Your task to perform on an android device: Look up the best rated headphones on Amazon. Image 0: 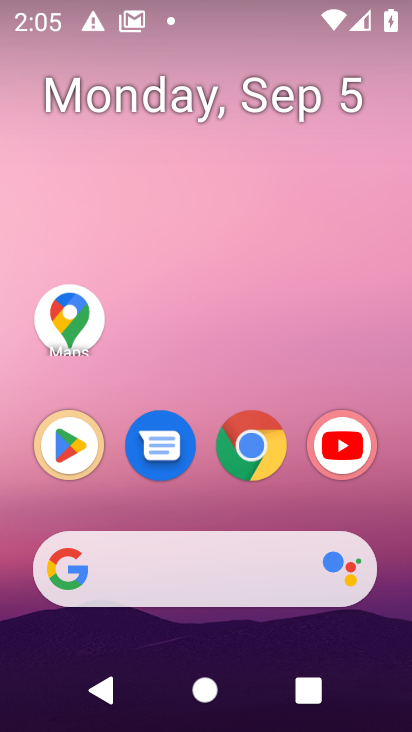
Step 0: drag from (206, 188) to (201, 0)
Your task to perform on an android device: Look up the best rated headphones on Amazon. Image 1: 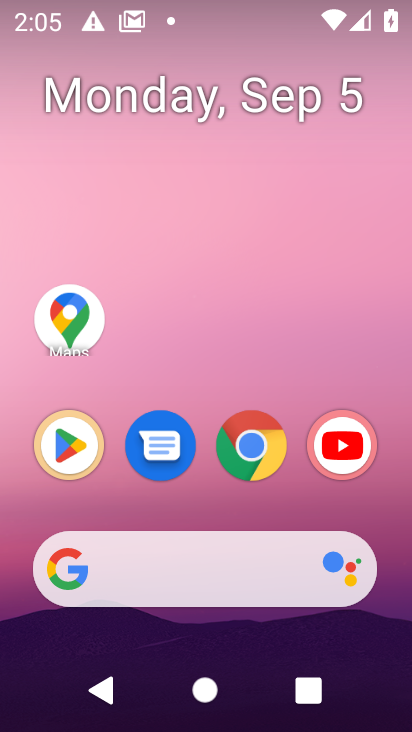
Step 1: drag from (195, 496) to (191, 0)
Your task to perform on an android device: Look up the best rated headphones on Amazon. Image 2: 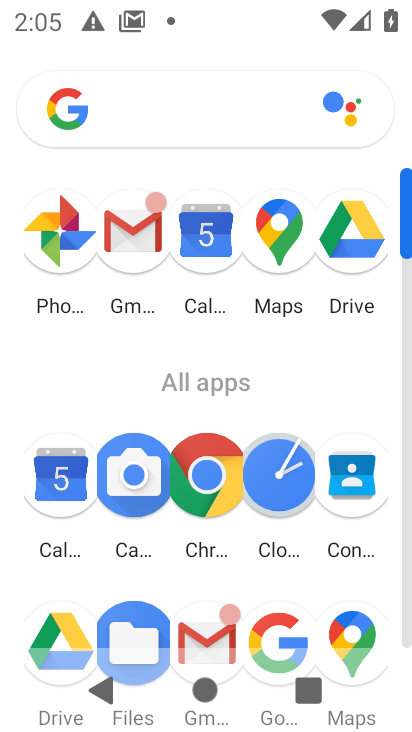
Step 2: click (207, 474)
Your task to perform on an android device: Look up the best rated headphones on Amazon. Image 3: 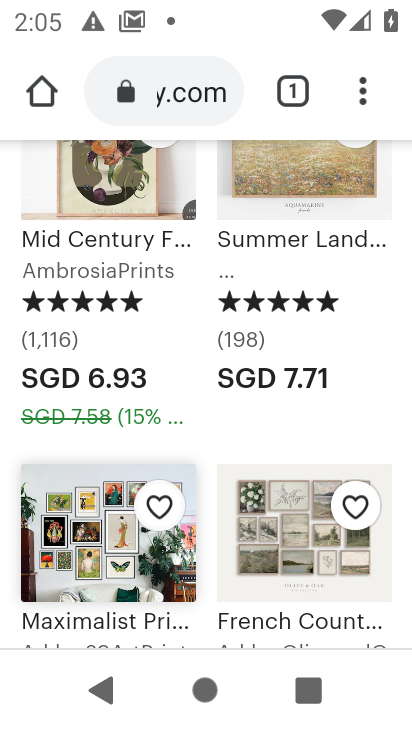
Step 3: click (286, 87)
Your task to perform on an android device: Look up the best rated headphones on Amazon. Image 4: 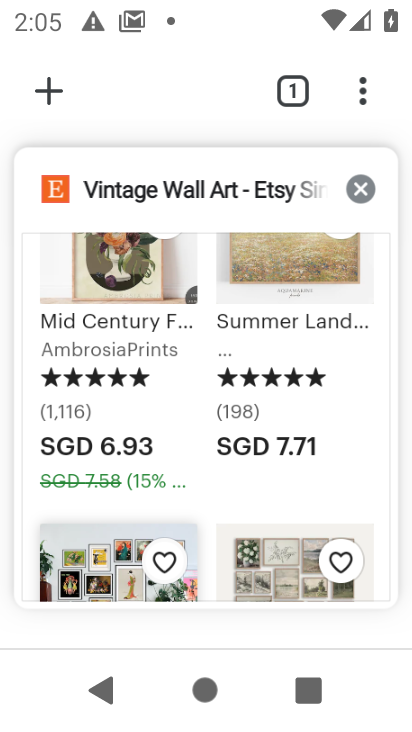
Step 4: click (359, 186)
Your task to perform on an android device: Look up the best rated headphones on Amazon. Image 5: 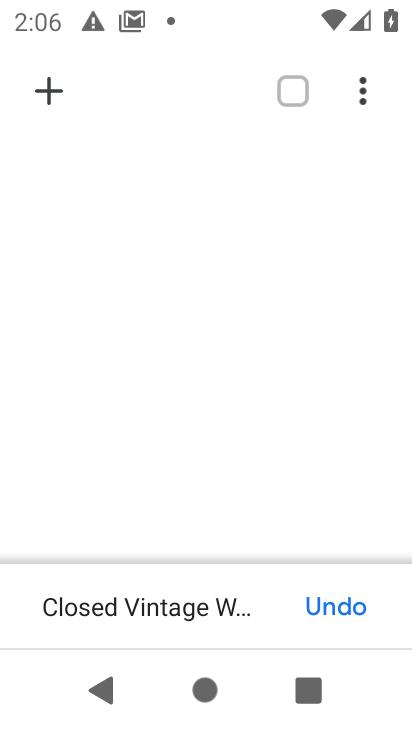
Step 5: click (50, 96)
Your task to perform on an android device: Look up the best rated headphones on Amazon. Image 6: 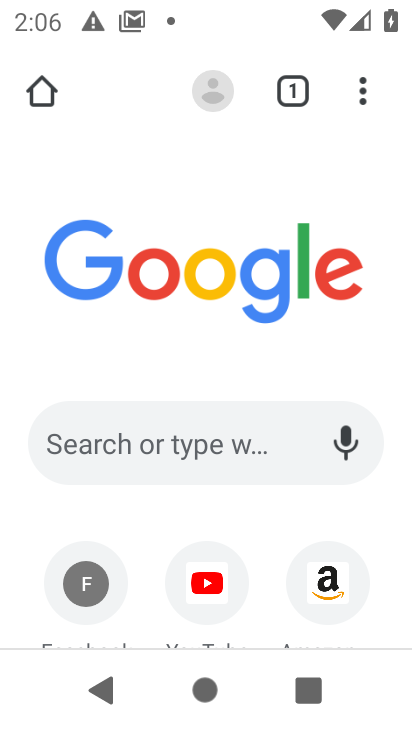
Step 6: click (154, 451)
Your task to perform on an android device: Look up the best rated headphones on Amazon. Image 7: 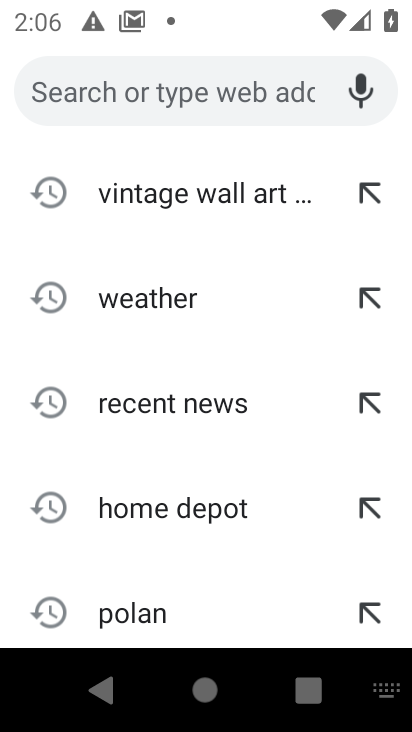
Step 7: type "best rated headphones on Amazon"
Your task to perform on an android device: Look up the best rated headphones on Amazon. Image 8: 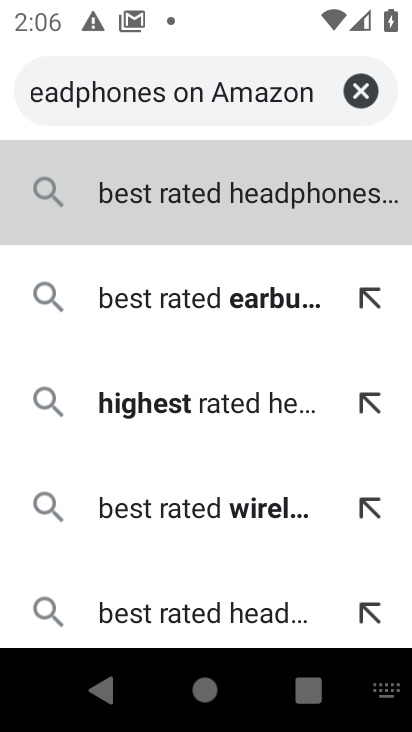
Step 8: click (220, 215)
Your task to perform on an android device: Look up the best rated headphones on Amazon. Image 9: 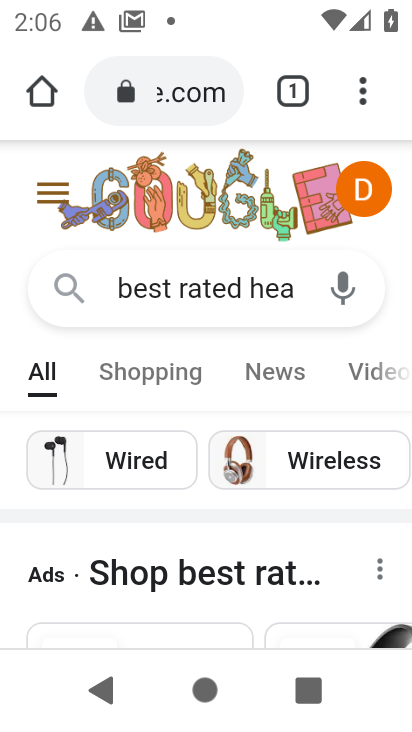
Step 9: drag from (202, 489) to (230, 196)
Your task to perform on an android device: Look up the best rated headphones on Amazon. Image 10: 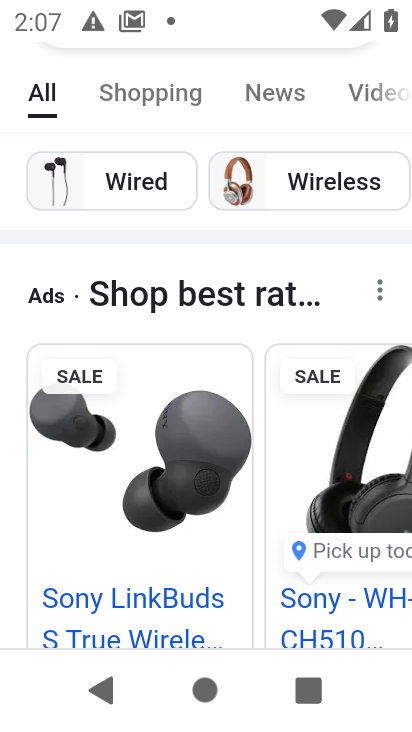
Step 10: drag from (256, 637) to (263, 142)
Your task to perform on an android device: Look up the best rated headphones on Amazon. Image 11: 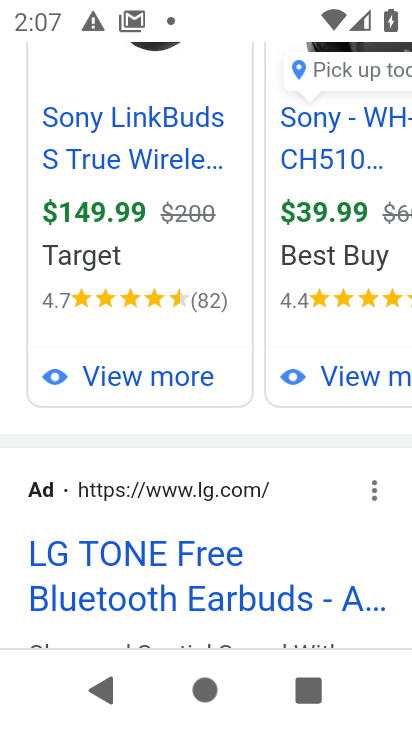
Step 11: drag from (275, 542) to (286, 249)
Your task to perform on an android device: Look up the best rated headphones on Amazon. Image 12: 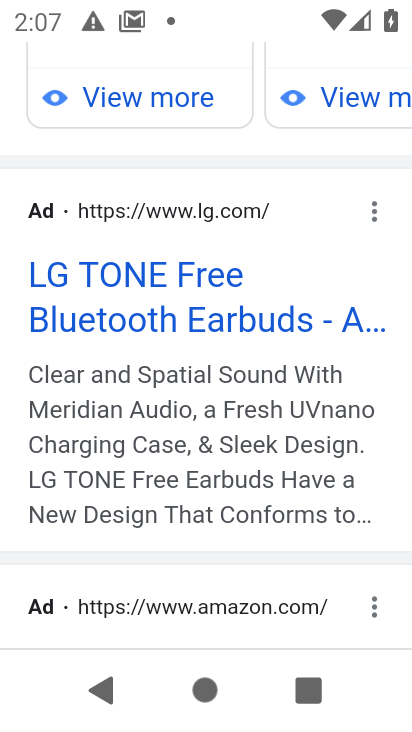
Step 12: drag from (267, 192) to (313, 650)
Your task to perform on an android device: Look up the best rated headphones on Amazon. Image 13: 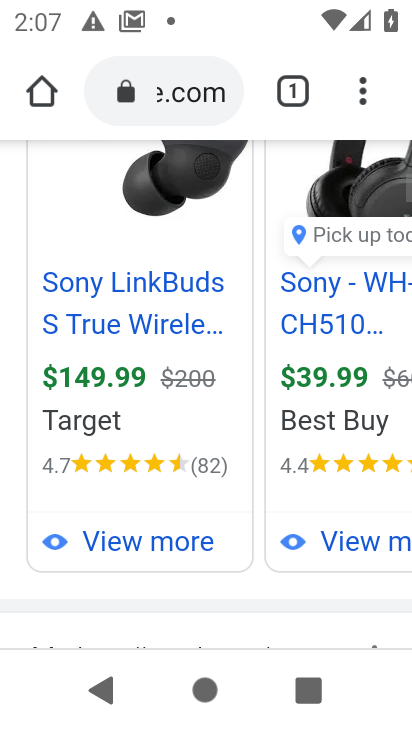
Step 13: drag from (245, 168) to (300, 593)
Your task to perform on an android device: Look up the best rated headphones on Amazon. Image 14: 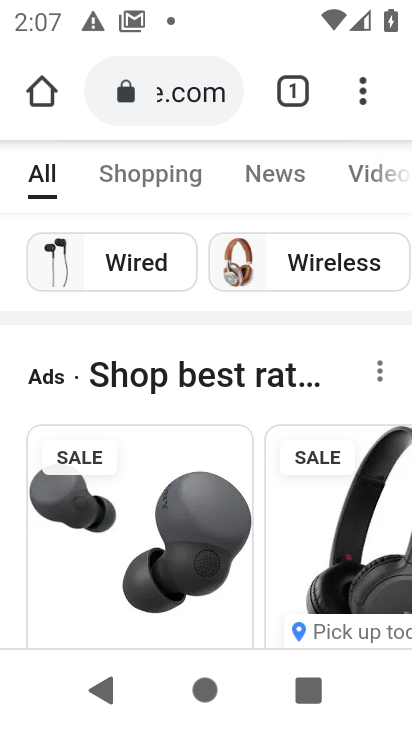
Step 14: drag from (262, 320) to (274, 562)
Your task to perform on an android device: Look up the best rated headphones on Amazon. Image 15: 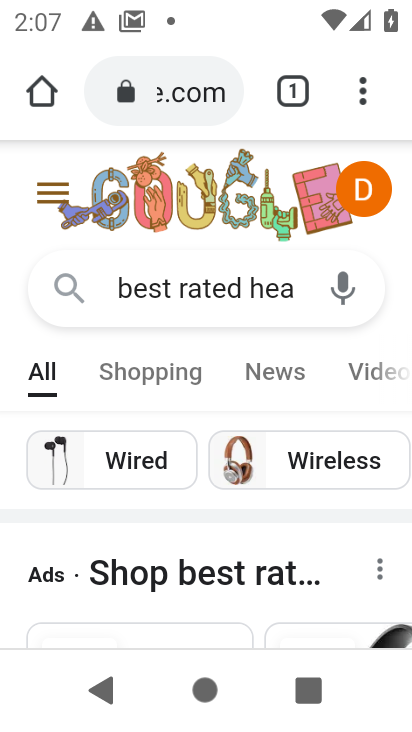
Step 15: drag from (257, 493) to (258, 172)
Your task to perform on an android device: Look up the best rated headphones on Amazon. Image 16: 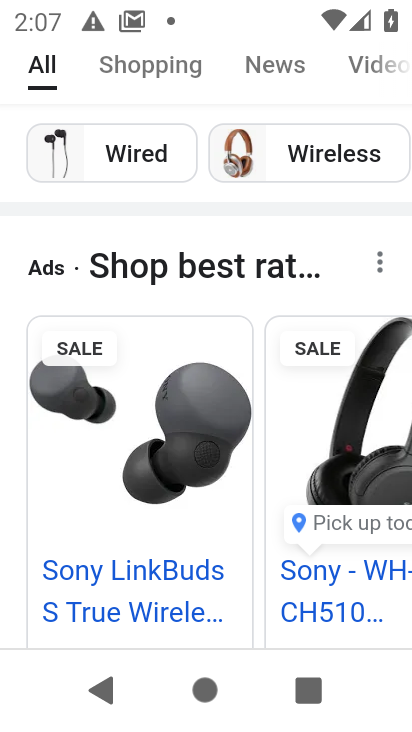
Step 16: drag from (260, 609) to (265, 185)
Your task to perform on an android device: Look up the best rated headphones on Amazon. Image 17: 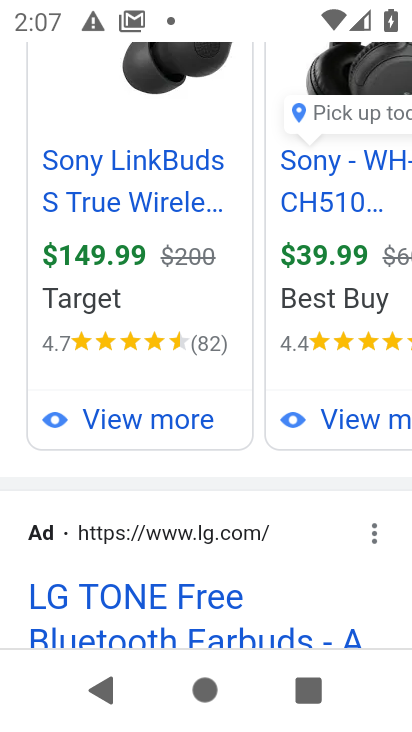
Step 17: drag from (239, 582) to (255, 184)
Your task to perform on an android device: Look up the best rated headphones on Amazon. Image 18: 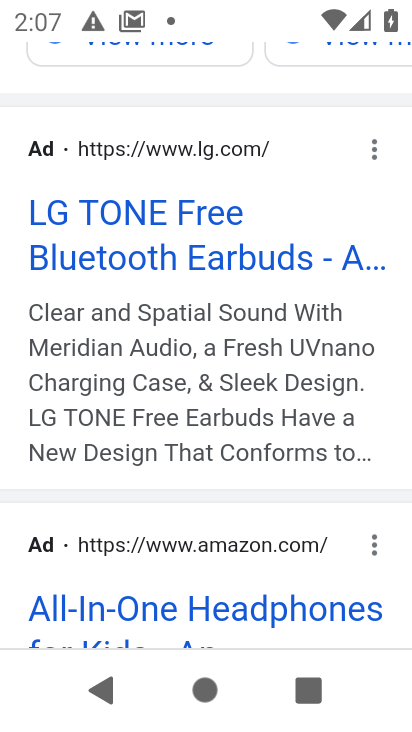
Step 18: click (242, 616)
Your task to perform on an android device: Look up the best rated headphones on Amazon. Image 19: 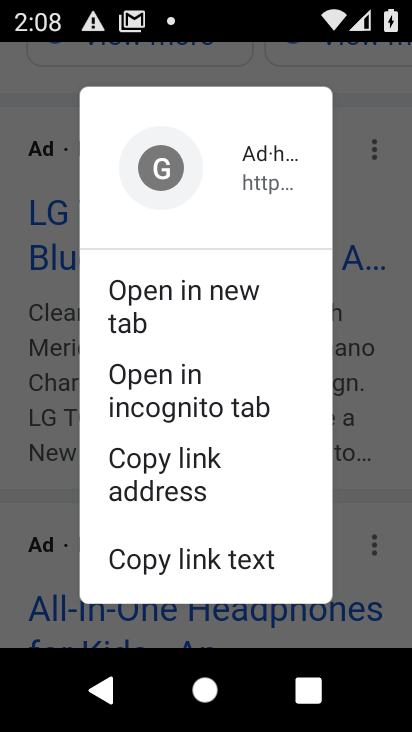
Step 19: click (63, 511)
Your task to perform on an android device: Look up the best rated headphones on Amazon. Image 20: 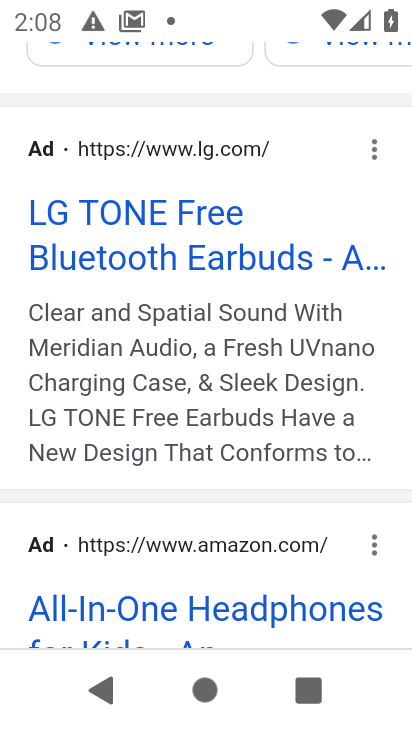
Step 20: drag from (214, 613) to (243, 205)
Your task to perform on an android device: Look up the best rated headphones on Amazon. Image 21: 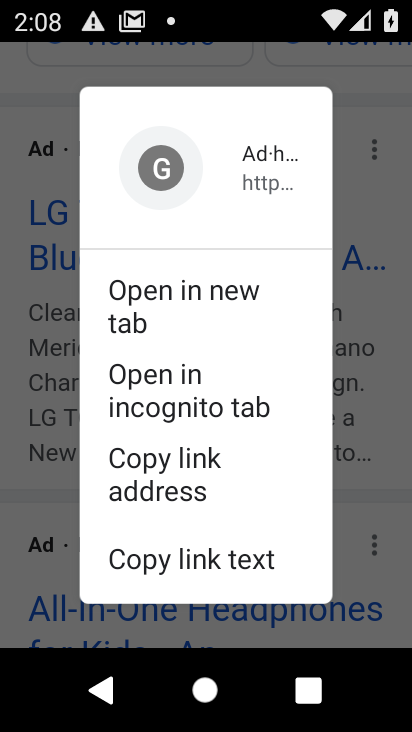
Step 21: click (372, 540)
Your task to perform on an android device: Look up the best rated headphones on Amazon. Image 22: 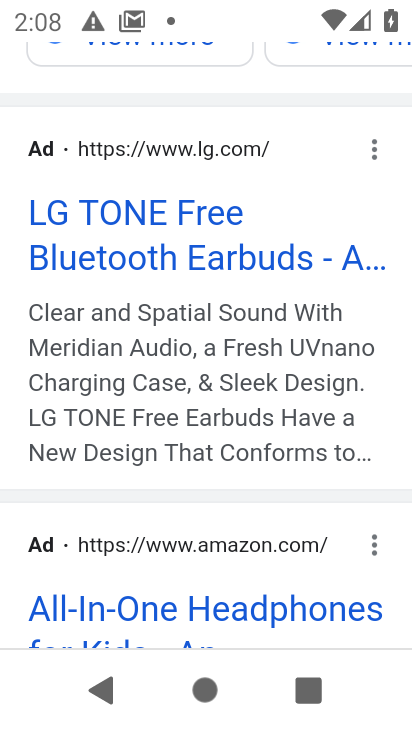
Step 22: drag from (231, 611) to (311, 163)
Your task to perform on an android device: Look up the best rated headphones on Amazon. Image 23: 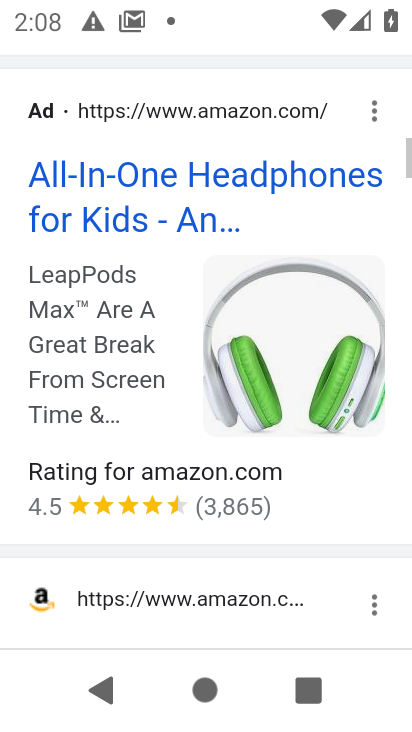
Step 23: drag from (228, 601) to (259, 279)
Your task to perform on an android device: Look up the best rated headphones on Amazon. Image 24: 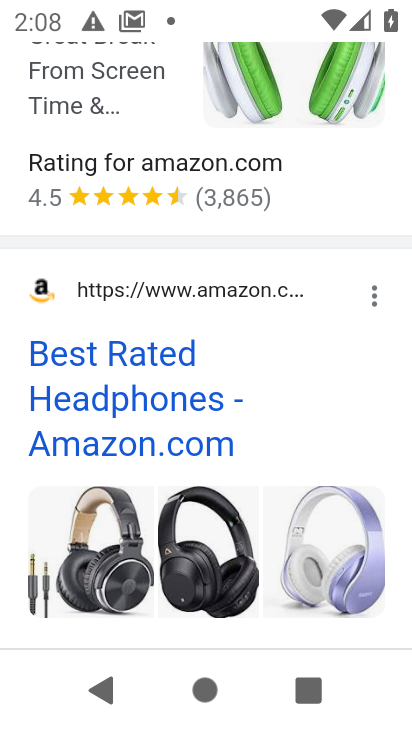
Step 24: click (130, 392)
Your task to perform on an android device: Look up the best rated headphones on Amazon. Image 25: 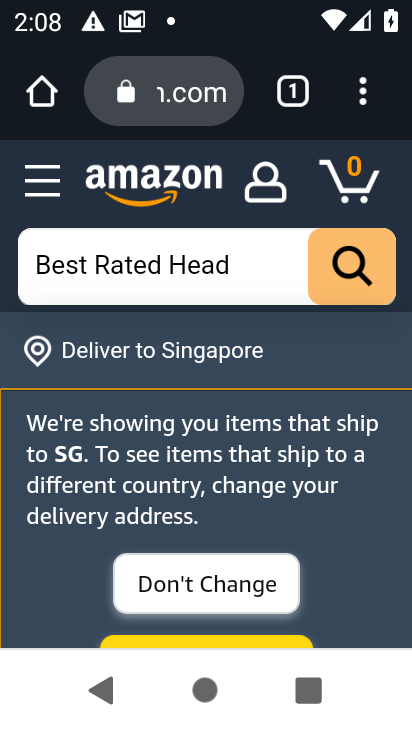
Step 25: click (369, 270)
Your task to perform on an android device: Look up the best rated headphones on Amazon. Image 26: 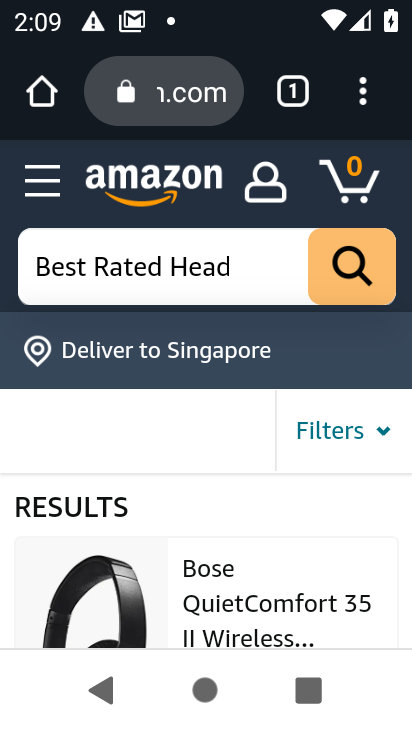
Step 26: task complete